Your task to perform on an android device: Open location settings Image 0: 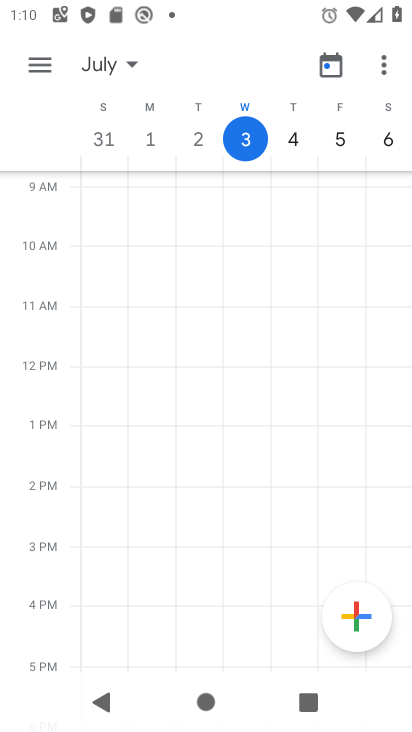
Step 0: press home button
Your task to perform on an android device: Open location settings Image 1: 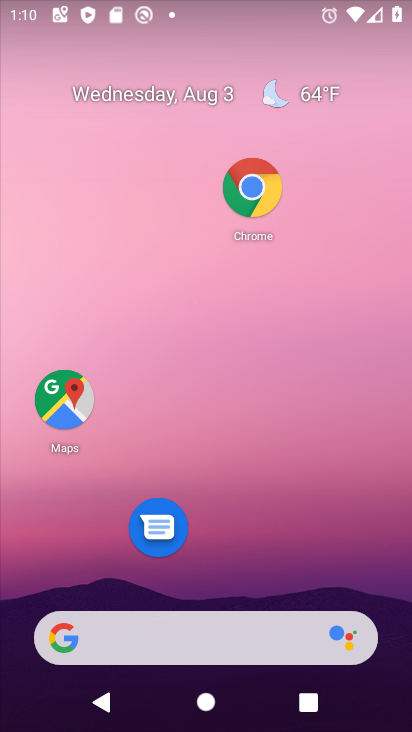
Step 1: drag from (229, 589) to (238, 117)
Your task to perform on an android device: Open location settings Image 2: 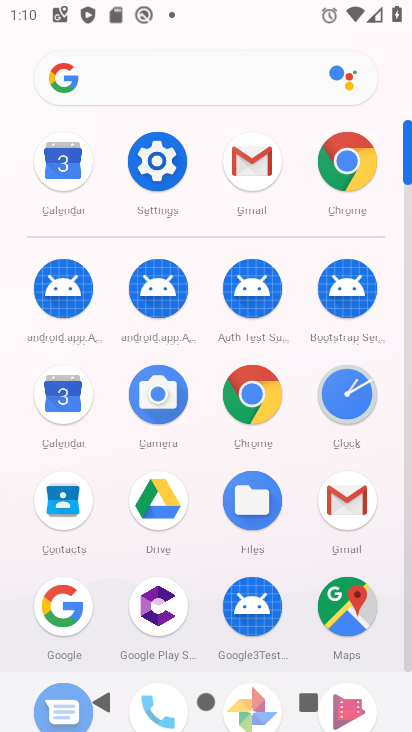
Step 2: click (157, 174)
Your task to perform on an android device: Open location settings Image 3: 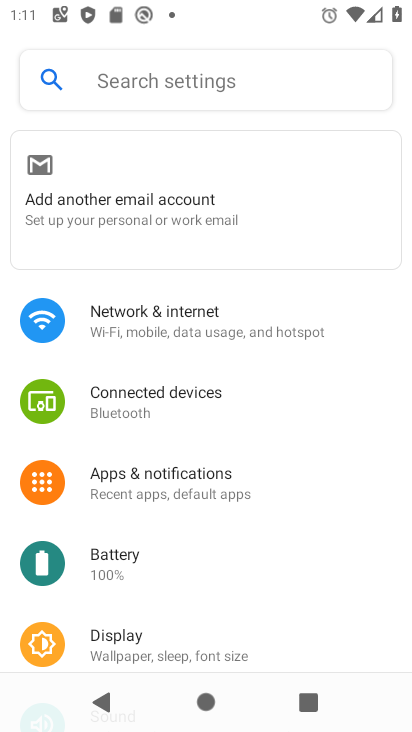
Step 3: drag from (173, 604) to (202, 224)
Your task to perform on an android device: Open location settings Image 4: 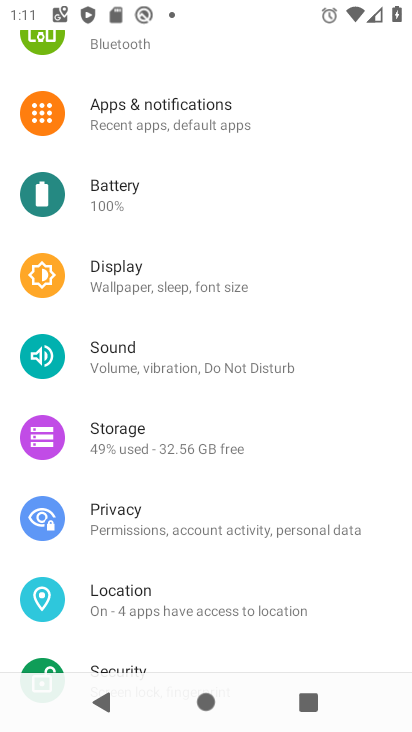
Step 4: click (145, 594)
Your task to perform on an android device: Open location settings Image 5: 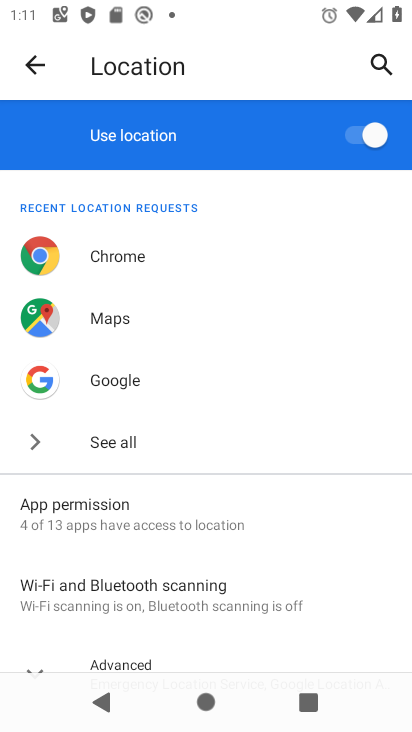
Step 5: task complete